Your task to perform on an android device: What is the recent news? Image 0: 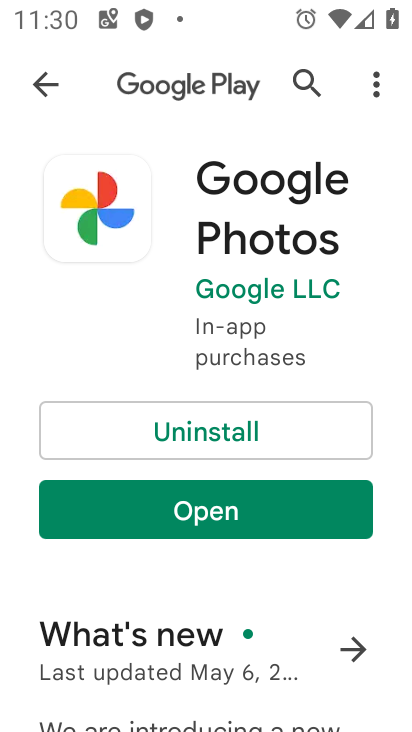
Step 0: press home button
Your task to perform on an android device: What is the recent news? Image 1: 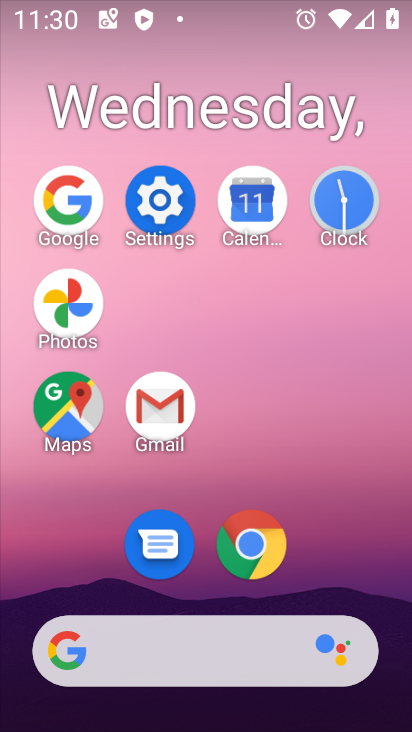
Step 1: click (66, 211)
Your task to perform on an android device: What is the recent news? Image 2: 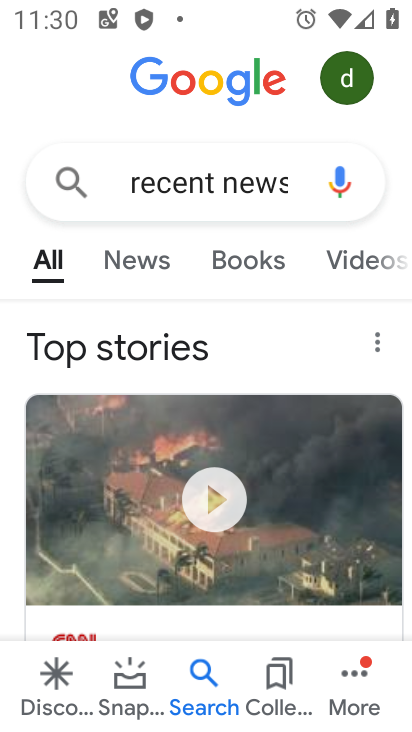
Step 2: task complete